Your task to perform on an android device: turn on priority inbox in the gmail app Image 0: 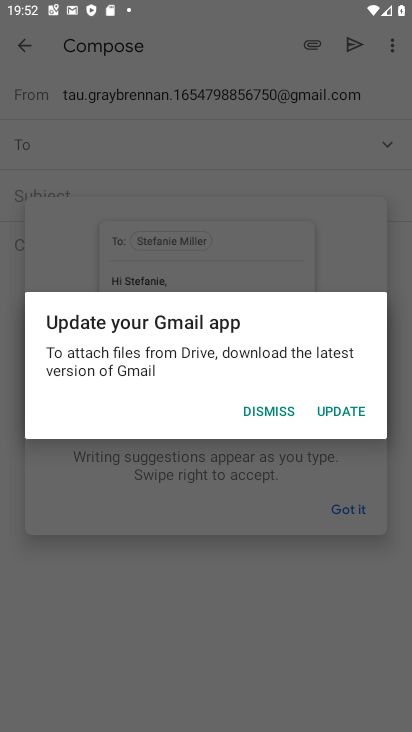
Step 0: press back button
Your task to perform on an android device: turn on priority inbox in the gmail app Image 1: 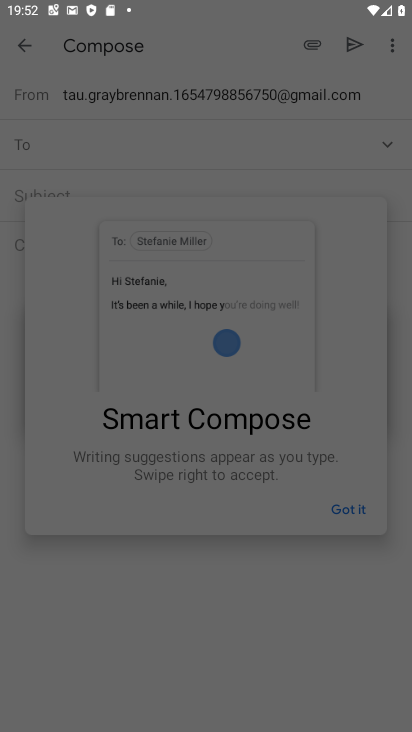
Step 1: press back button
Your task to perform on an android device: turn on priority inbox in the gmail app Image 2: 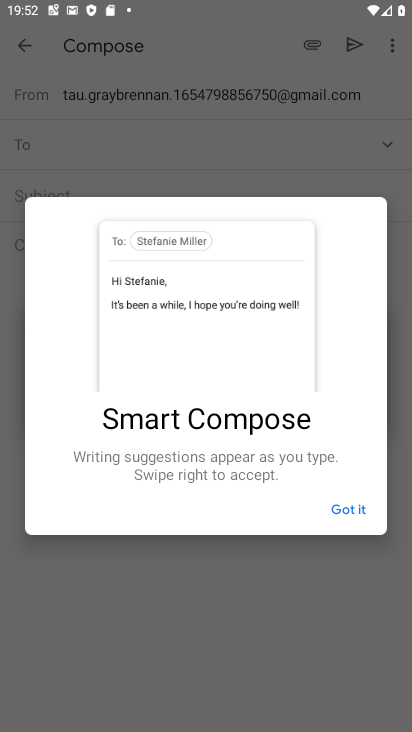
Step 2: press back button
Your task to perform on an android device: turn on priority inbox in the gmail app Image 3: 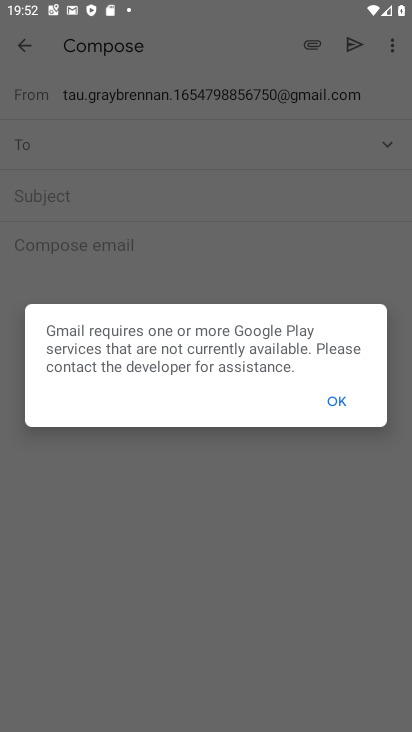
Step 3: press back button
Your task to perform on an android device: turn on priority inbox in the gmail app Image 4: 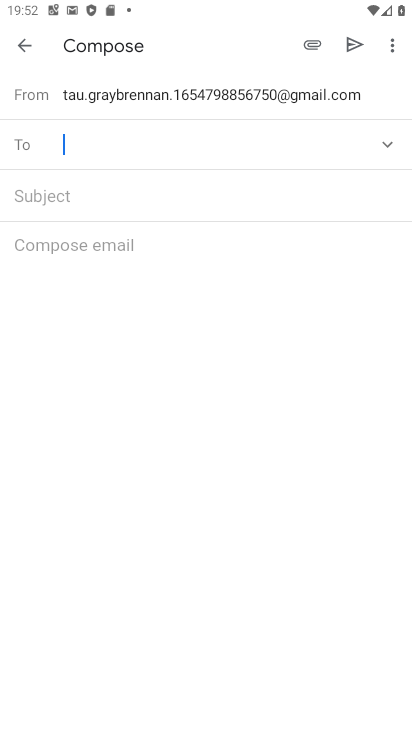
Step 4: press back button
Your task to perform on an android device: turn on priority inbox in the gmail app Image 5: 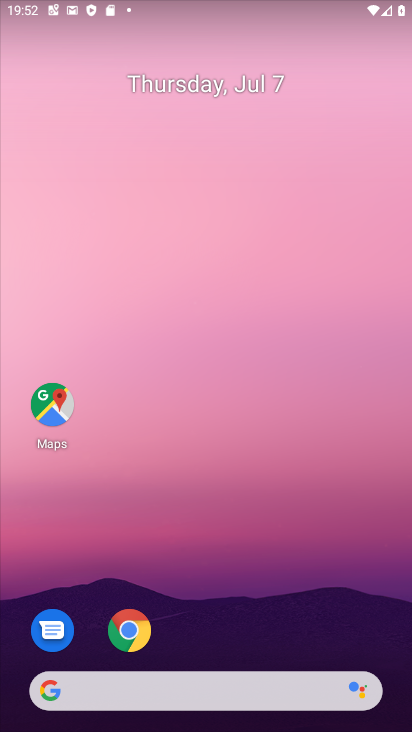
Step 5: drag from (230, 542) to (189, 10)
Your task to perform on an android device: turn on priority inbox in the gmail app Image 6: 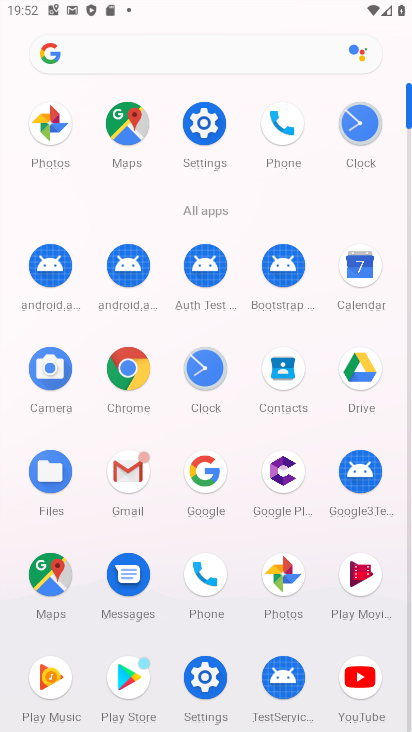
Step 6: click (132, 490)
Your task to perform on an android device: turn on priority inbox in the gmail app Image 7: 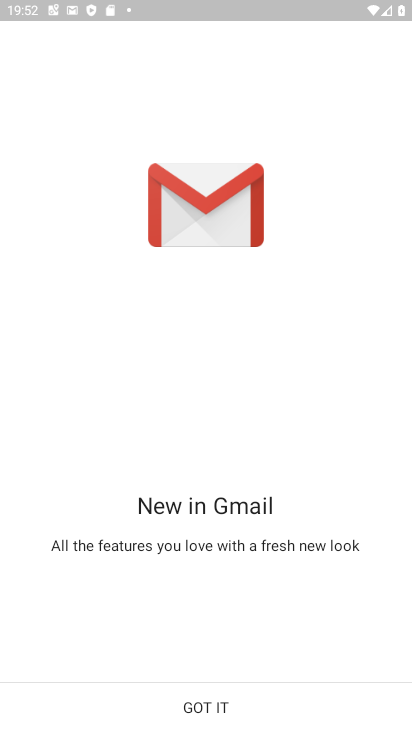
Step 7: click (184, 719)
Your task to perform on an android device: turn on priority inbox in the gmail app Image 8: 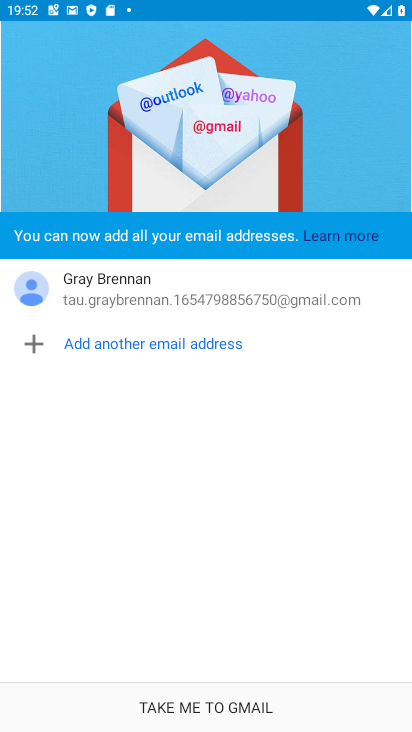
Step 8: click (184, 719)
Your task to perform on an android device: turn on priority inbox in the gmail app Image 9: 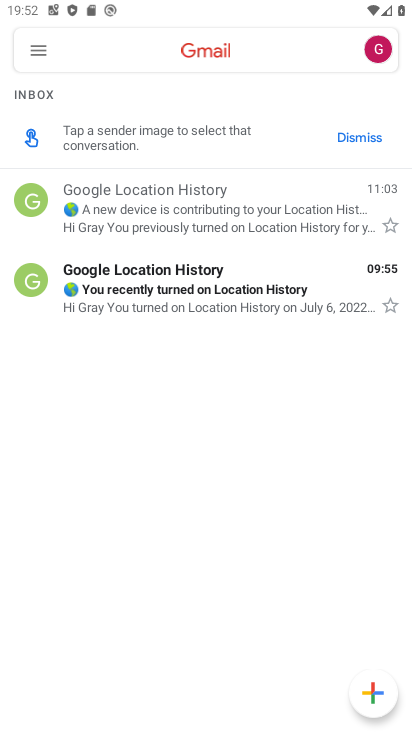
Step 9: click (31, 50)
Your task to perform on an android device: turn on priority inbox in the gmail app Image 10: 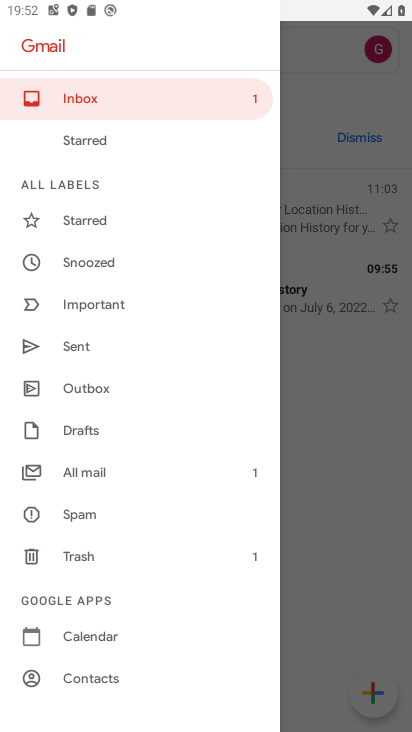
Step 10: drag from (110, 603) to (118, 311)
Your task to perform on an android device: turn on priority inbox in the gmail app Image 11: 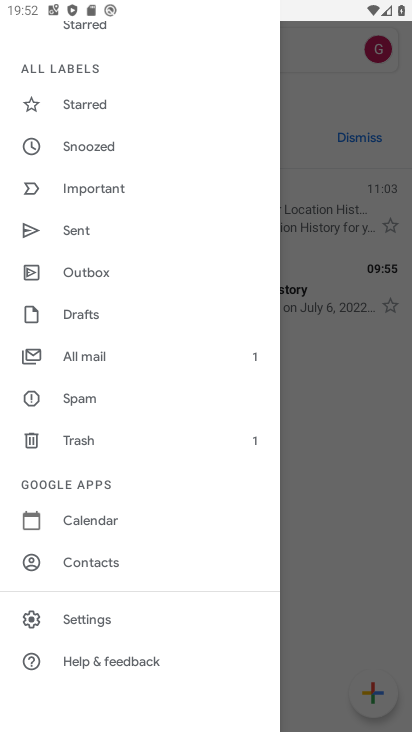
Step 11: click (95, 622)
Your task to perform on an android device: turn on priority inbox in the gmail app Image 12: 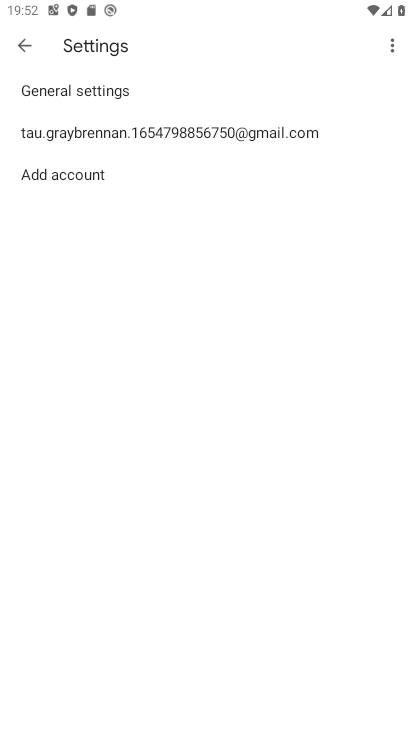
Step 12: click (157, 135)
Your task to perform on an android device: turn on priority inbox in the gmail app Image 13: 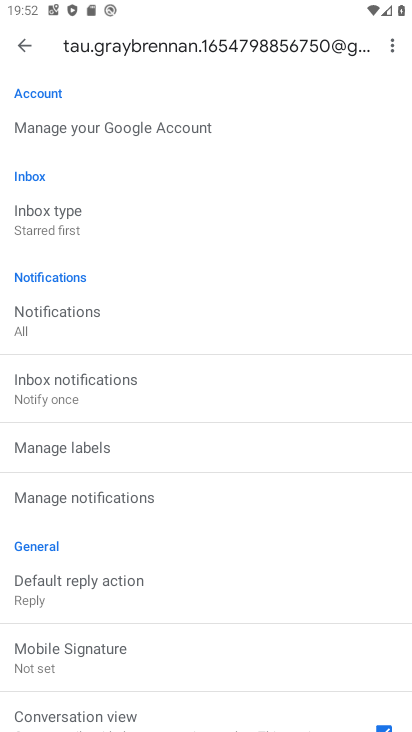
Step 13: click (80, 228)
Your task to perform on an android device: turn on priority inbox in the gmail app Image 14: 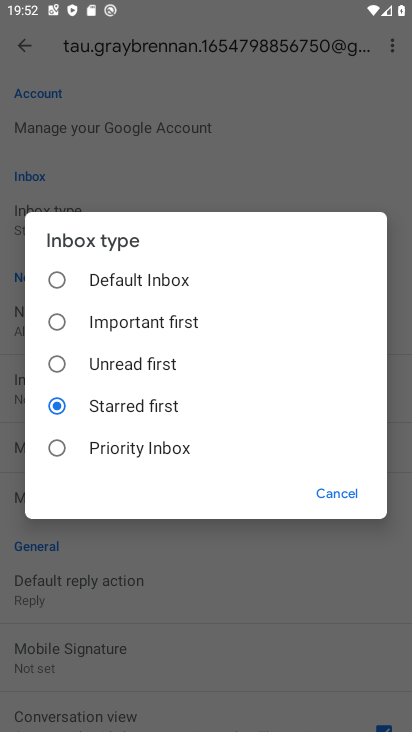
Step 14: click (98, 441)
Your task to perform on an android device: turn on priority inbox in the gmail app Image 15: 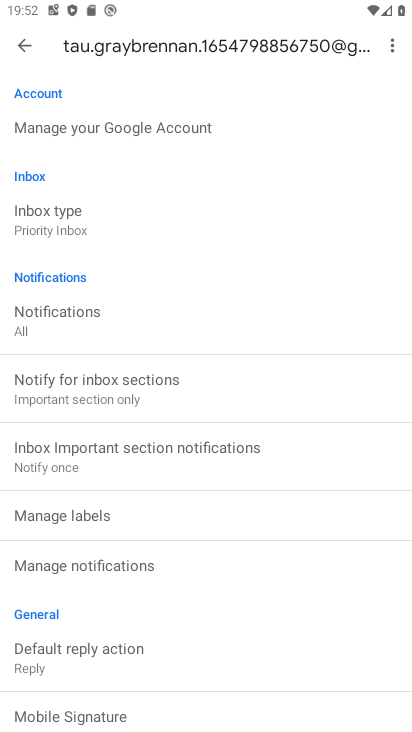
Step 15: task complete